Your task to perform on an android device: refresh tabs in the chrome app Image 0: 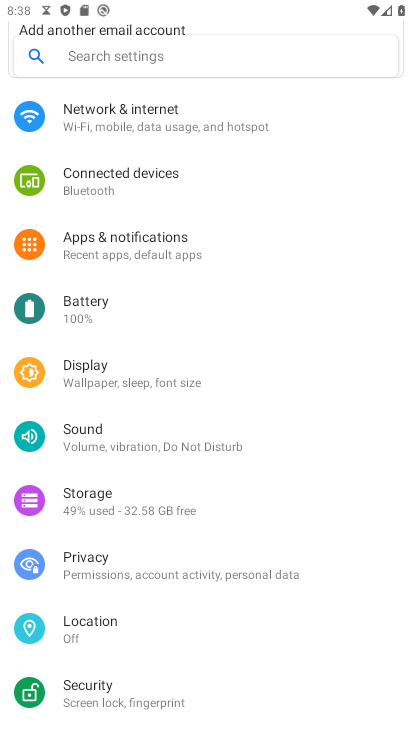
Step 0: press home button
Your task to perform on an android device: refresh tabs in the chrome app Image 1: 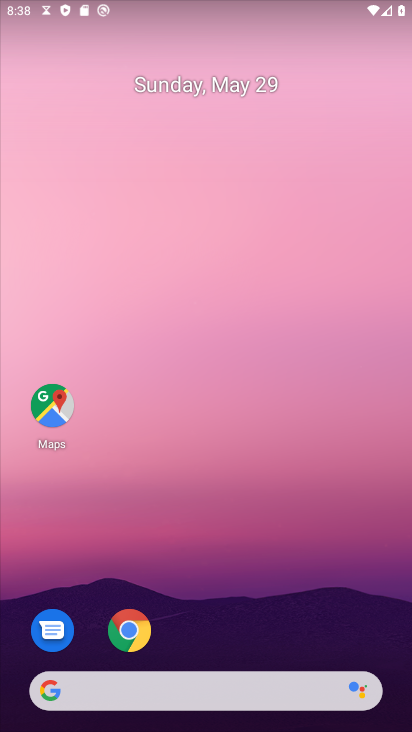
Step 1: click (124, 635)
Your task to perform on an android device: refresh tabs in the chrome app Image 2: 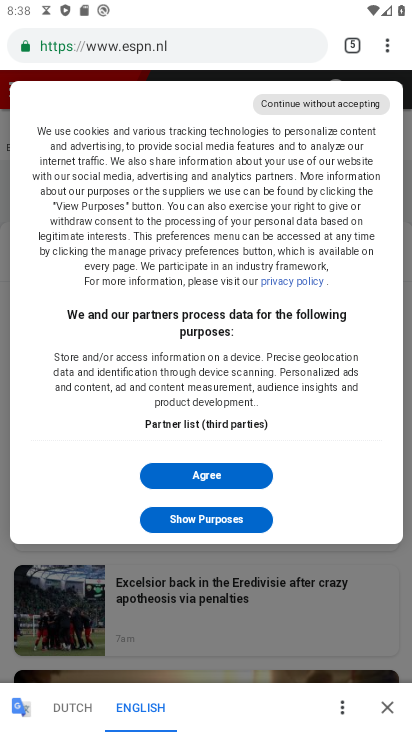
Step 2: click (389, 44)
Your task to perform on an android device: refresh tabs in the chrome app Image 3: 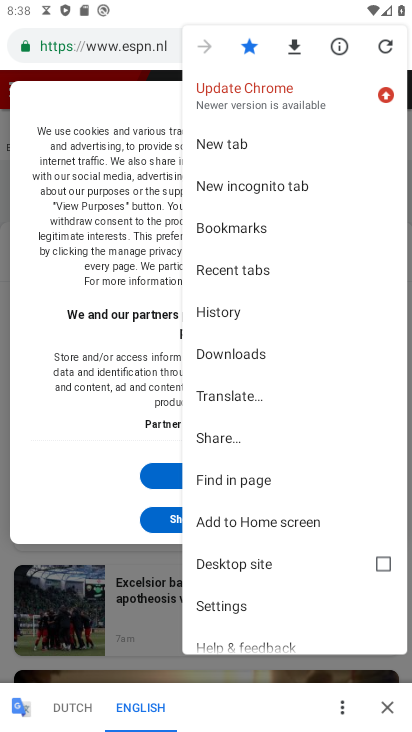
Step 3: click (387, 48)
Your task to perform on an android device: refresh tabs in the chrome app Image 4: 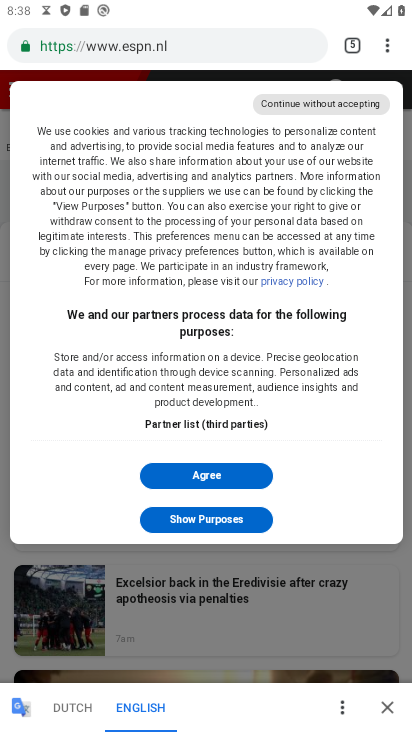
Step 4: task complete